Your task to perform on an android device: refresh tabs in the chrome app Image 0: 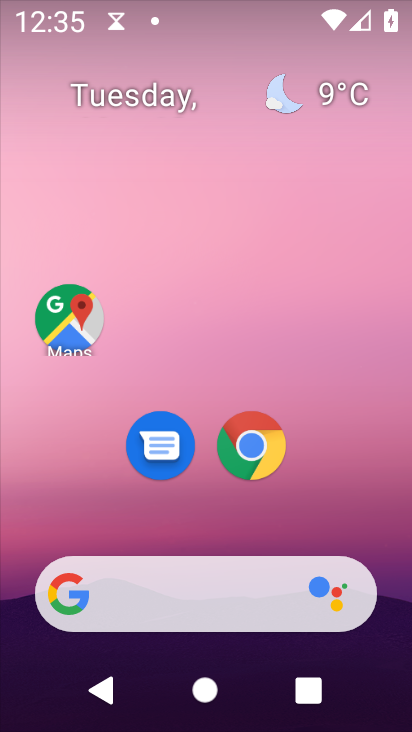
Step 0: drag from (347, 634) to (336, 37)
Your task to perform on an android device: refresh tabs in the chrome app Image 1: 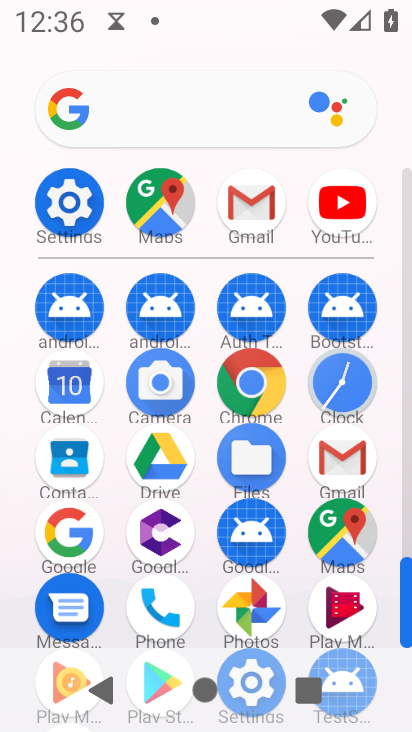
Step 1: click (272, 399)
Your task to perform on an android device: refresh tabs in the chrome app Image 2: 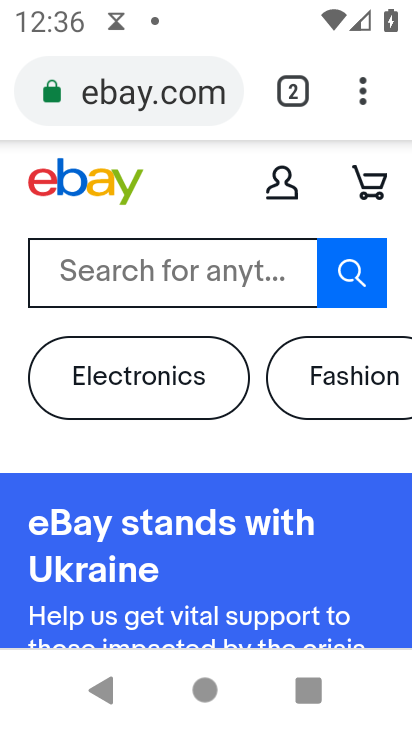
Step 2: task complete